Your task to perform on an android device: turn on bluetooth scan Image 0: 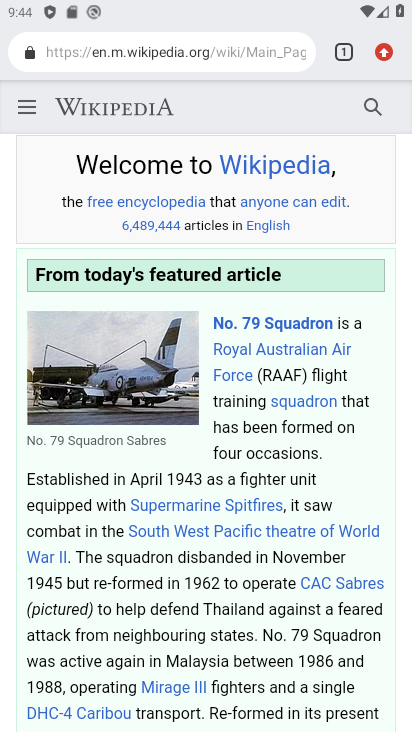
Step 0: press home button
Your task to perform on an android device: turn on bluetooth scan Image 1: 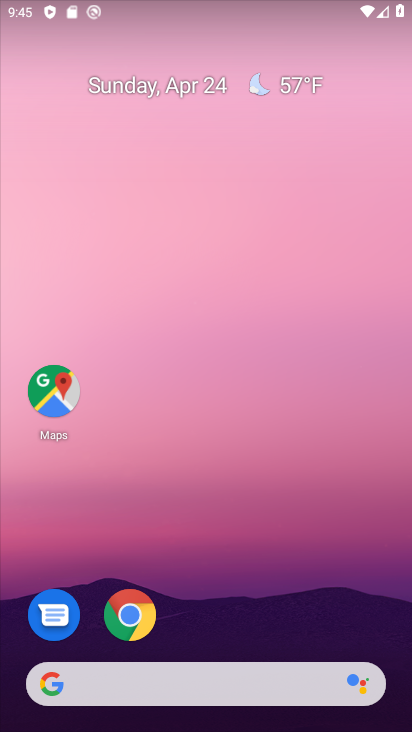
Step 1: drag from (381, 647) to (326, 117)
Your task to perform on an android device: turn on bluetooth scan Image 2: 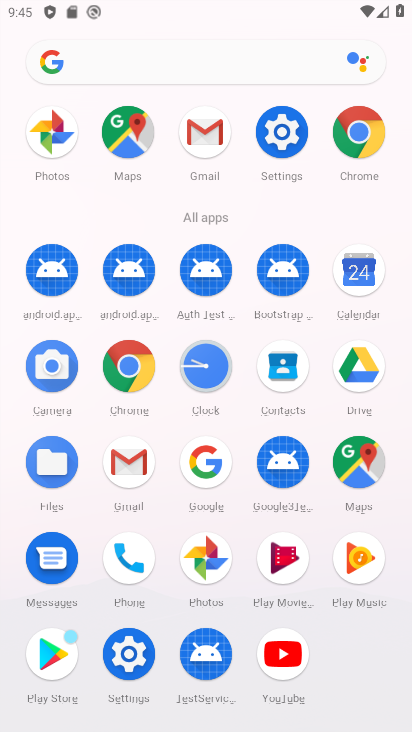
Step 2: click (127, 652)
Your task to perform on an android device: turn on bluetooth scan Image 3: 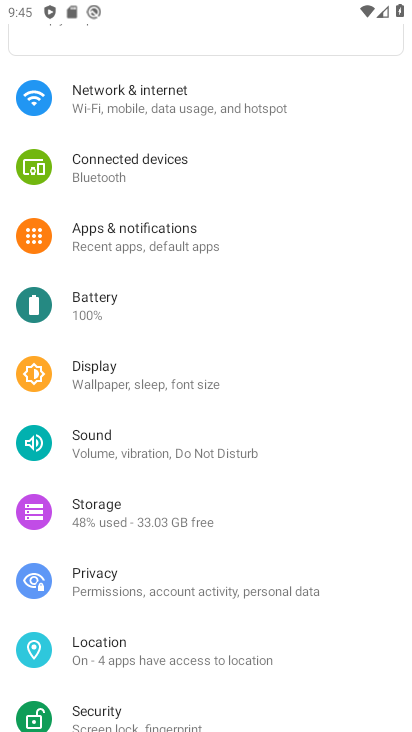
Step 3: click (96, 646)
Your task to perform on an android device: turn on bluetooth scan Image 4: 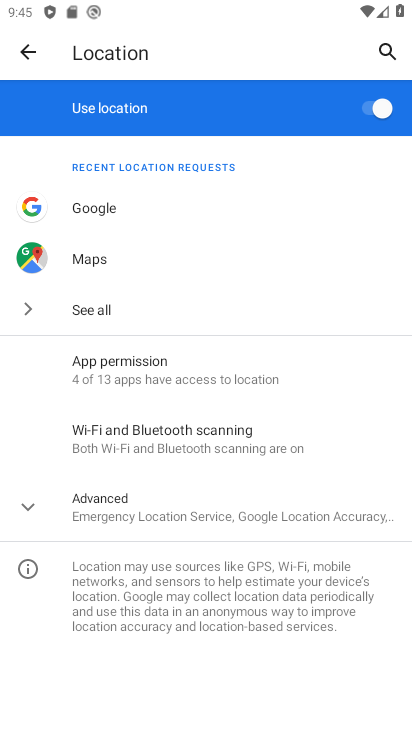
Step 4: click (194, 440)
Your task to perform on an android device: turn on bluetooth scan Image 5: 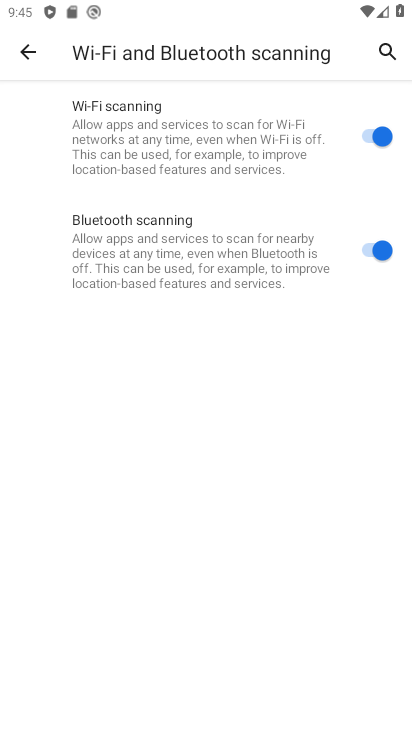
Step 5: task complete